Your task to perform on an android device: allow notifications from all sites in the chrome app Image 0: 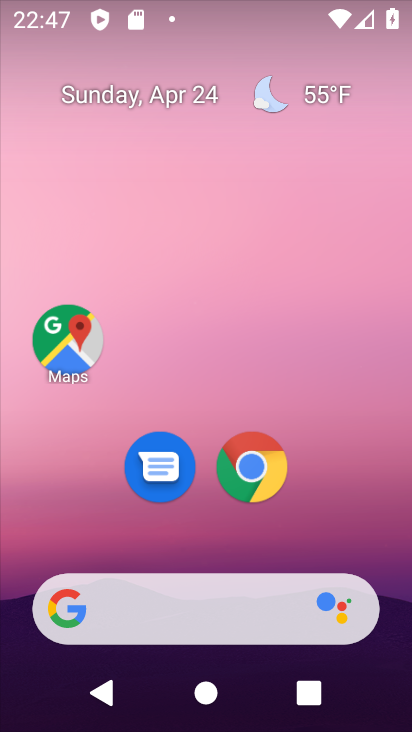
Step 0: click (254, 472)
Your task to perform on an android device: allow notifications from all sites in the chrome app Image 1: 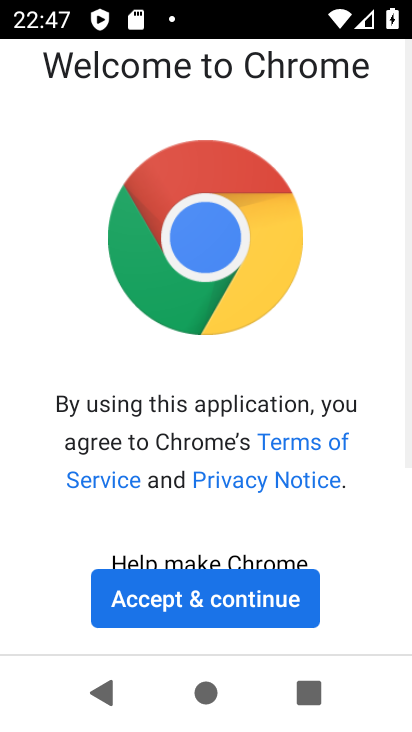
Step 1: click (219, 595)
Your task to perform on an android device: allow notifications from all sites in the chrome app Image 2: 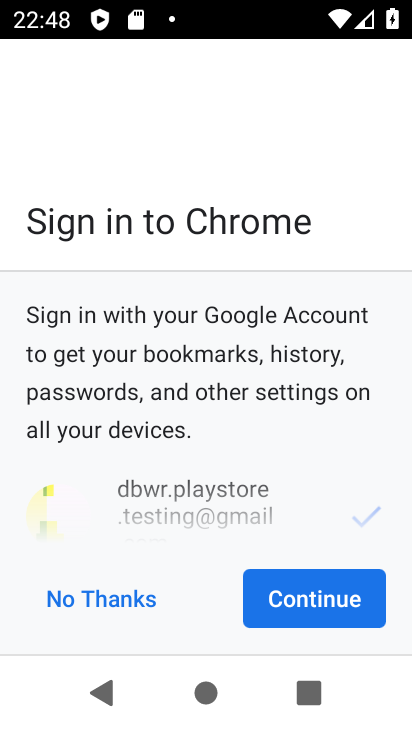
Step 2: click (316, 597)
Your task to perform on an android device: allow notifications from all sites in the chrome app Image 3: 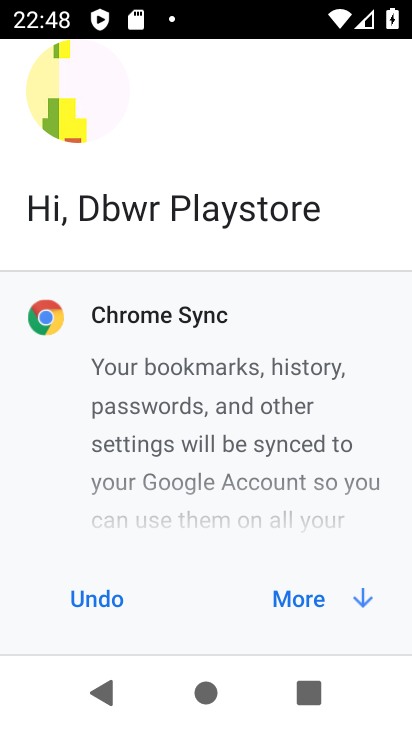
Step 3: click (316, 597)
Your task to perform on an android device: allow notifications from all sites in the chrome app Image 4: 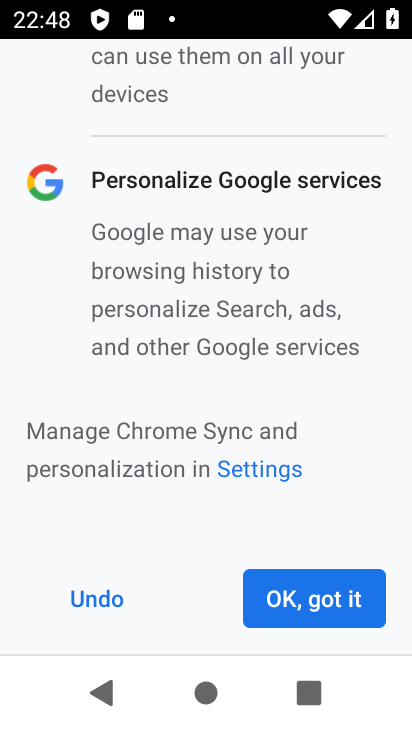
Step 4: click (316, 597)
Your task to perform on an android device: allow notifications from all sites in the chrome app Image 5: 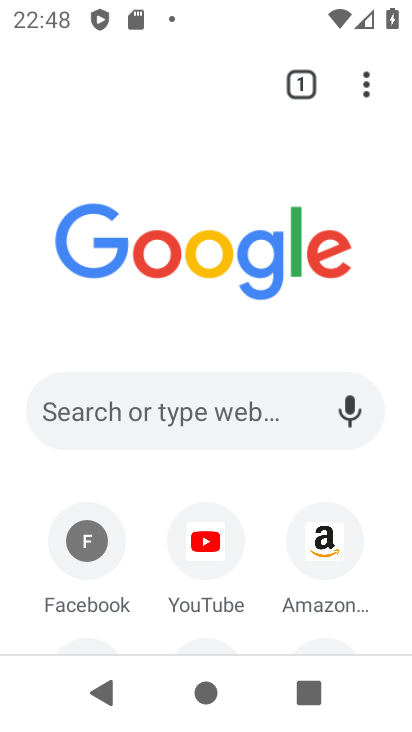
Step 5: click (362, 75)
Your task to perform on an android device: allow notifications from all sites in the chrome app Image 6: 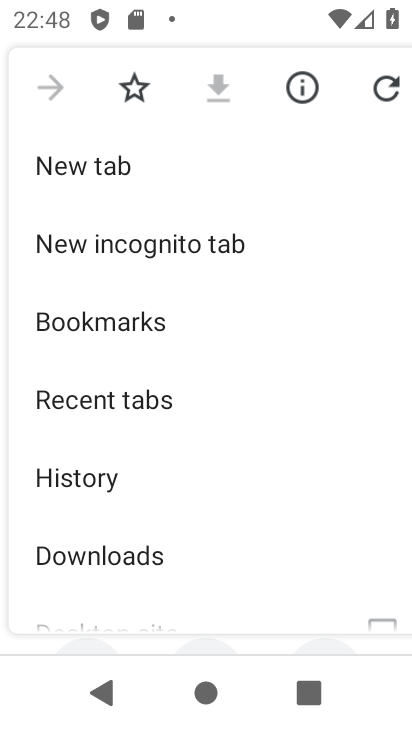
Step 6: drag from (287, 562) to (308, 168)
Your task to perform on an android device: allow notifications from all sites in the chrome app Image 7: 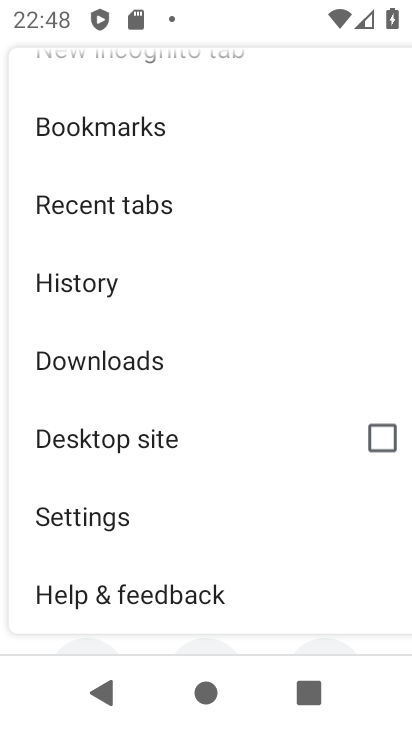
Step 7: click (74, 521)
Your task to perform on an android device: allow notifications from all sites in the chrome app Image 8: 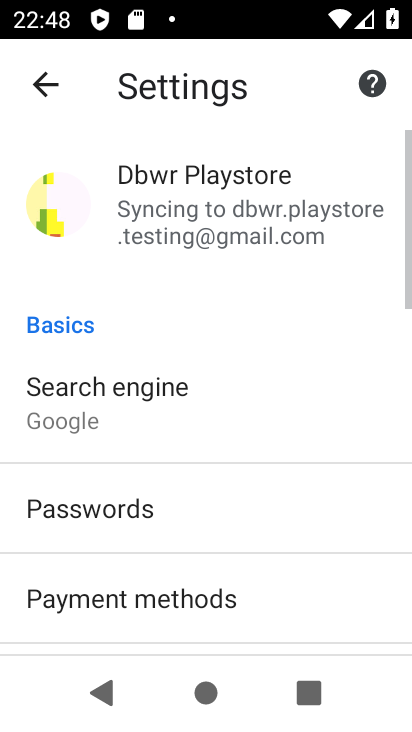
Step 8: drag from (214, 593) to (285, 177)
Your task to perform on an android device: allow notifications from all sites in the chrome app Image 9: 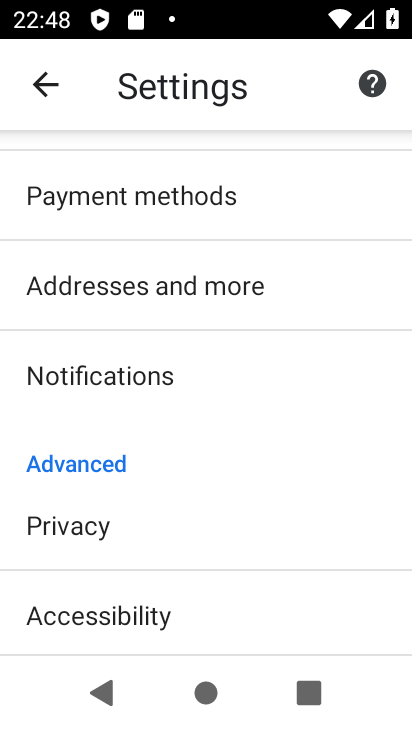
Step 9: drag from (147, 537) to (171, 212)
Your task to perform on an android device: allow notifications from all sites in the chrome app Image 10: 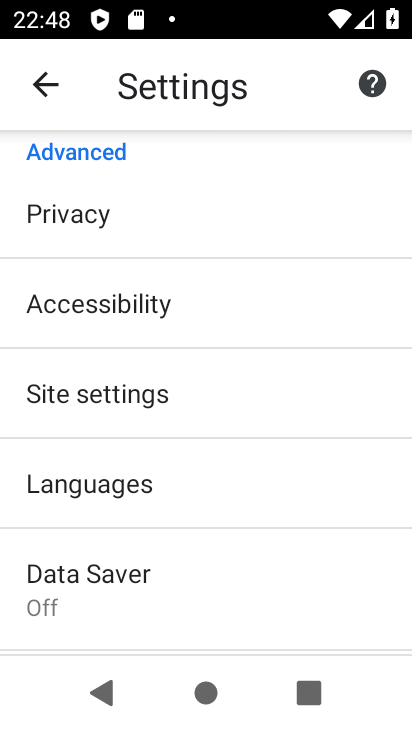
Step 10: click (146, 393)
Your task to perform on an android device: allow notifications from all sites in the chrome app Image 11: 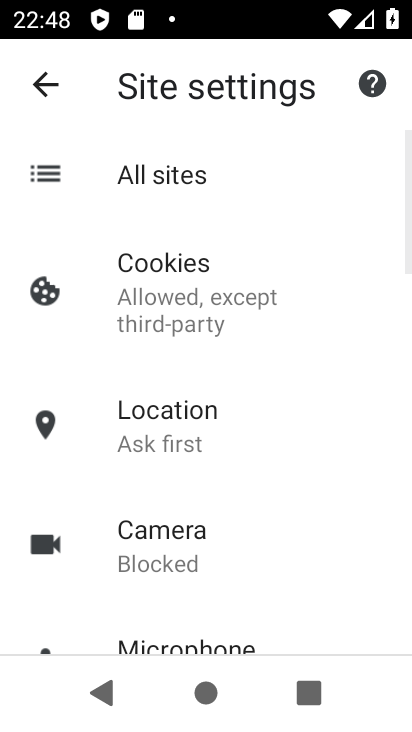
Step 11: drag from (183, 618) to (205, 225)
Your task to perform on an android device: allow notifications from all sites in the chrome app Image 12: 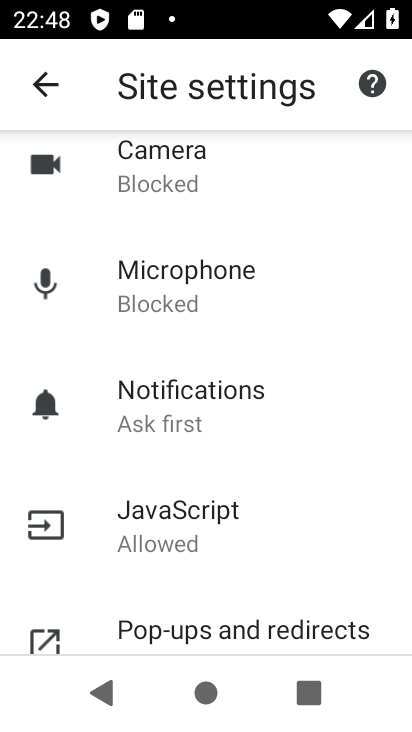
Step 12: click (192, 411)
Your task to perform on an android device: allow notifications from all sites in the chrome app Image 13: 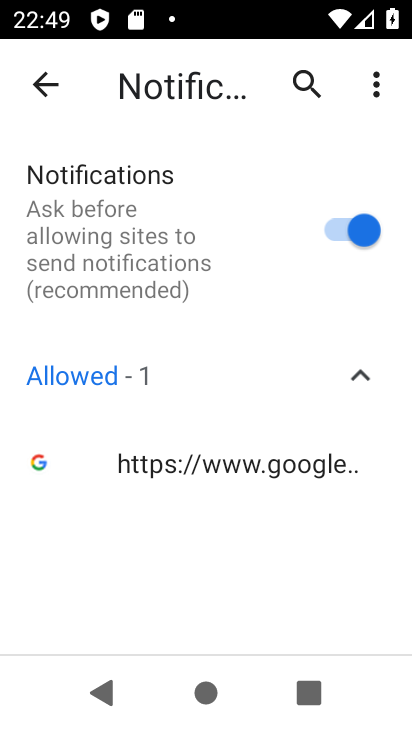
Step 13: task complete